Your task to perform on an android device: Open ESPN.com Image 0: 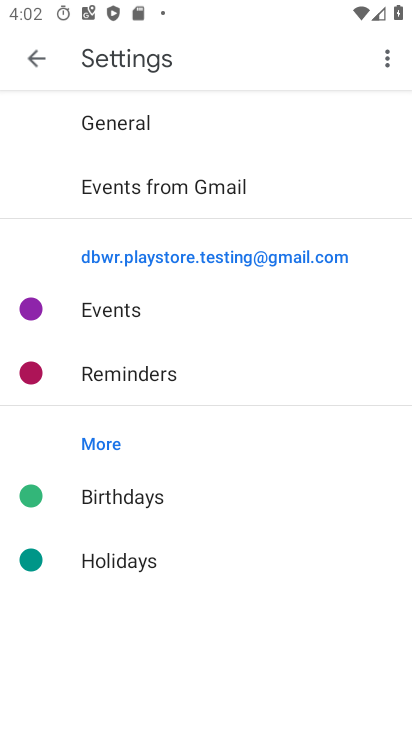
Step 0: press home button
Your task to perform on an android device: Open ESPN.com Image 1: 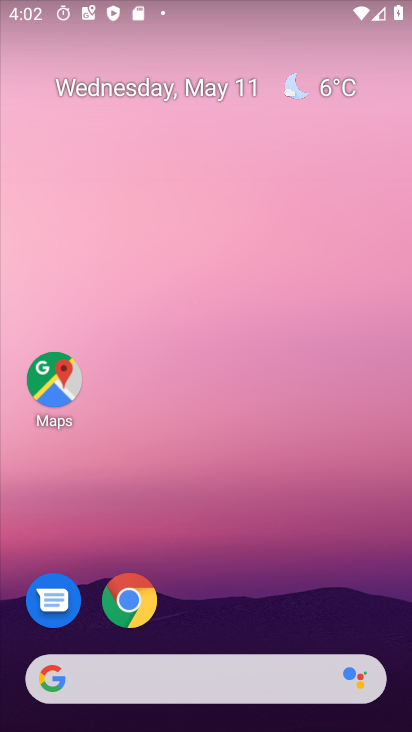
Step 1: drag from (331, 632) to (198, 178)
Your task to perform on an android device: Open ESPN.com Image 2: 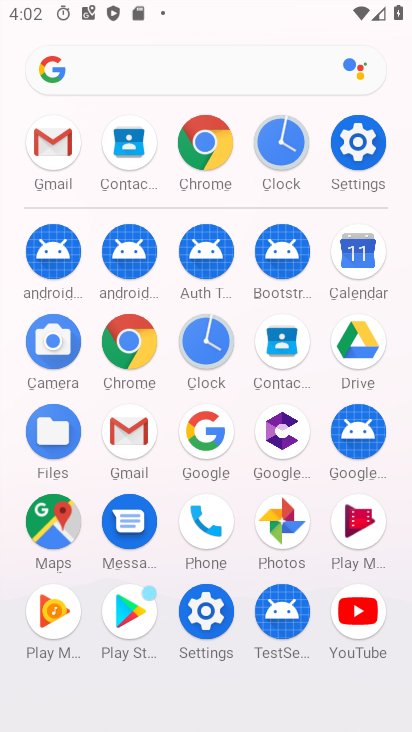
Step 2: click (199, 144)
Your task to perform on an android device: Open ESPN.com Image 3: 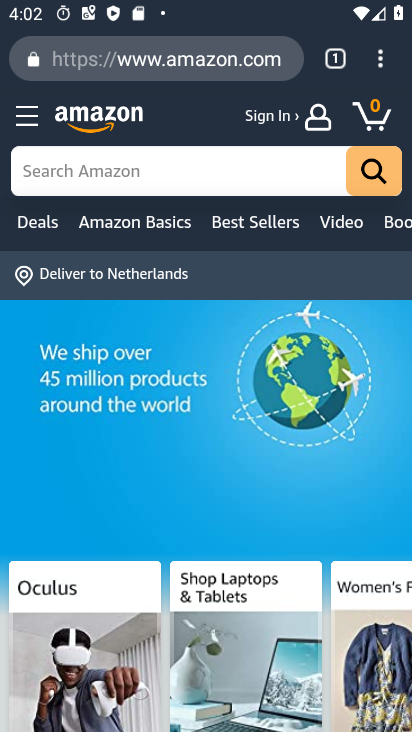
Step 3: click (382, 63)
Your task to perform on an android device: Open ESPN.com Image 4: 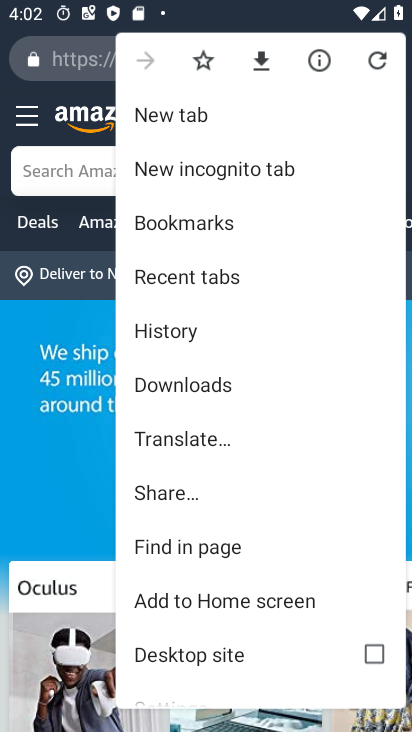
Step 4: click (171, 118)
Your task to perform on an android device: Open ESPN.com Image 5: 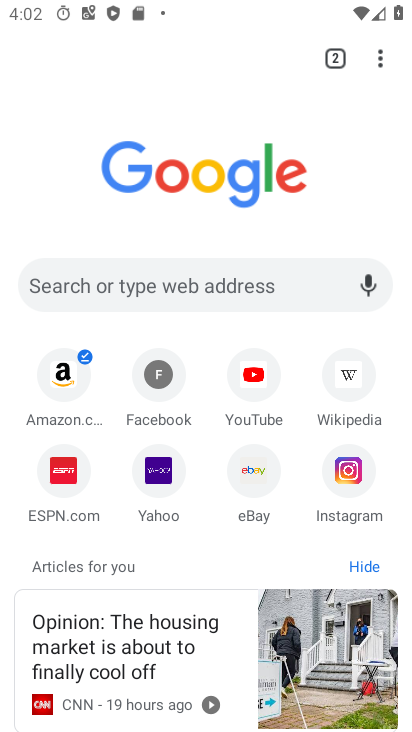
Step 5: click (59, 470)
Your task to perform on an android device: Open ESPN.com Image 6: 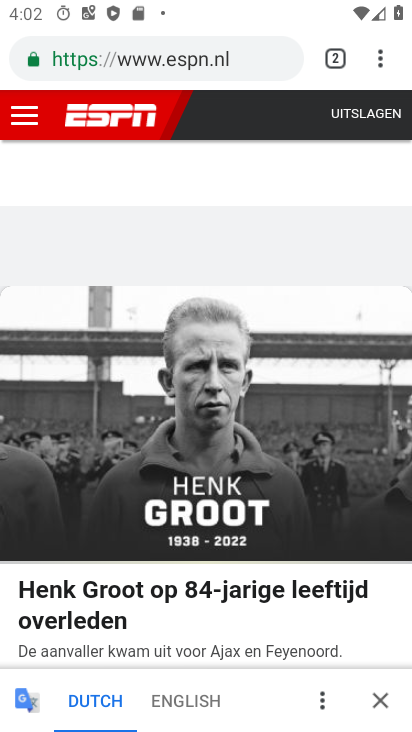
Step 6: drag from (185, 540) to (148, 168)
Your task to perform on an android device: Open ESPN.com Image 7: 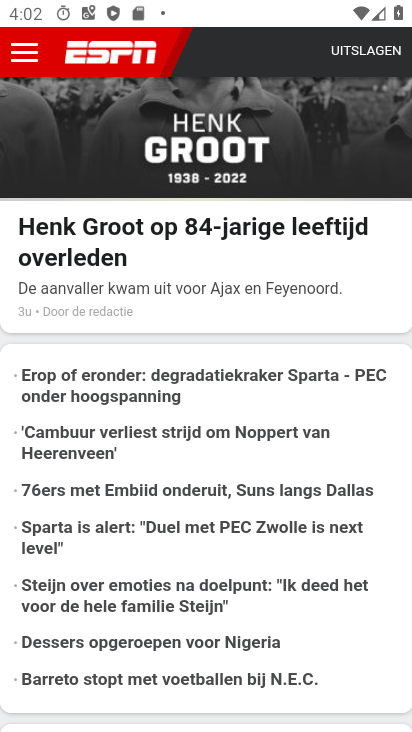
Step 7: drag from (149, 295) to (113, 139)
Your task to perform on an android device: Open ESPN.com Image 8: 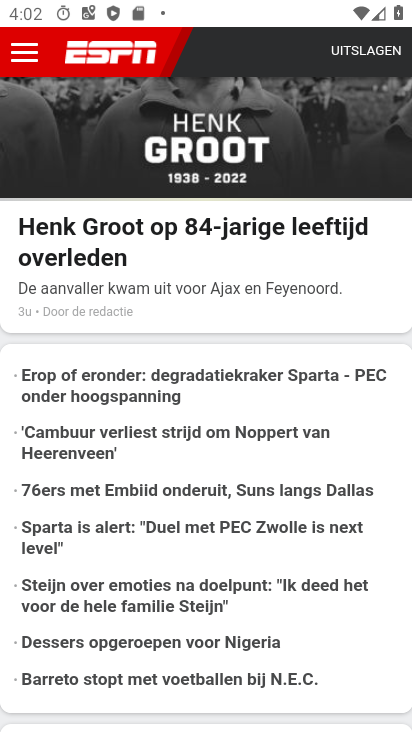
Step 8: drag from (185, 451) to (217, 254)
Your task to perform on an android device: Open ESPN.com Image 9: 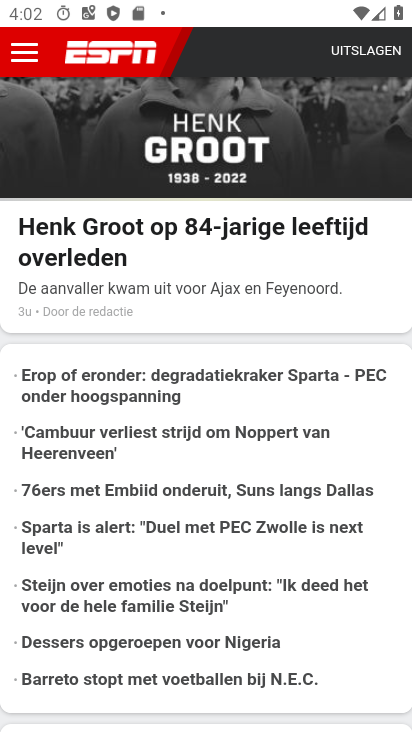
Step 9: drag from (236, 445) to (225, 79)
Your task to perform on an android device: Open ESPN.com Image 10: 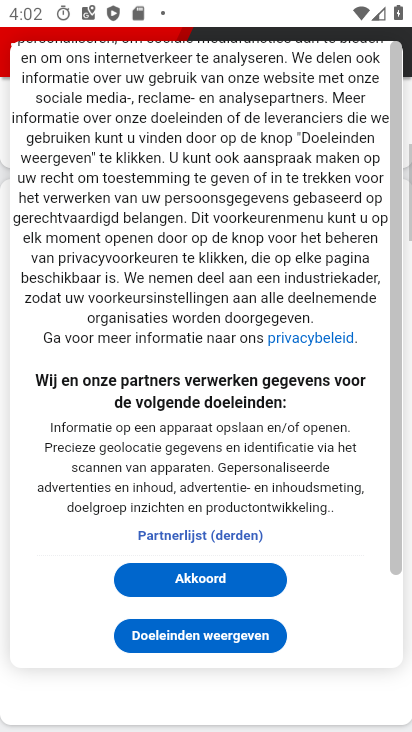
Step 10: drag from (245, 457) to (227, 157)
Your task to perform on an android device: Open ESPN.com Image 11: 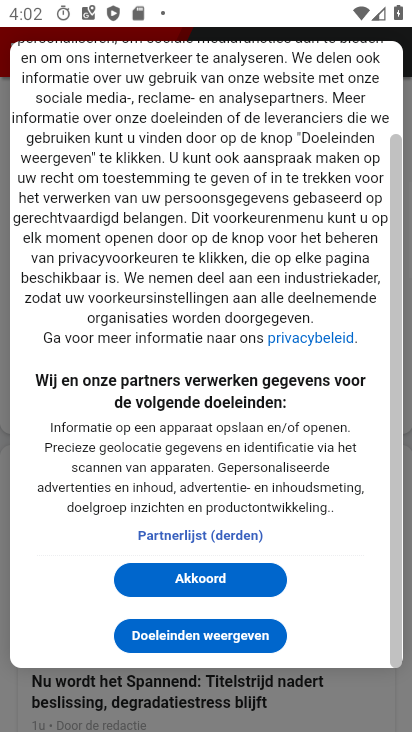
Step 11: click (236, 392)
Your task to perform on an android device: Open ESPN.com Image 12: 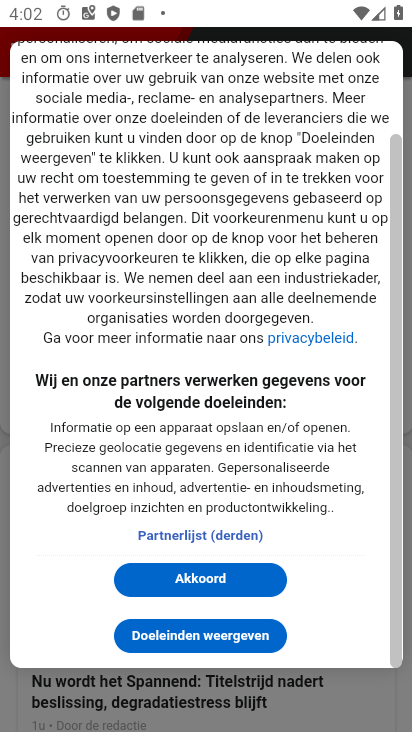
Step 12: task complete